Your task to perform on an android device: change notification settings in the gmail app Image 0: 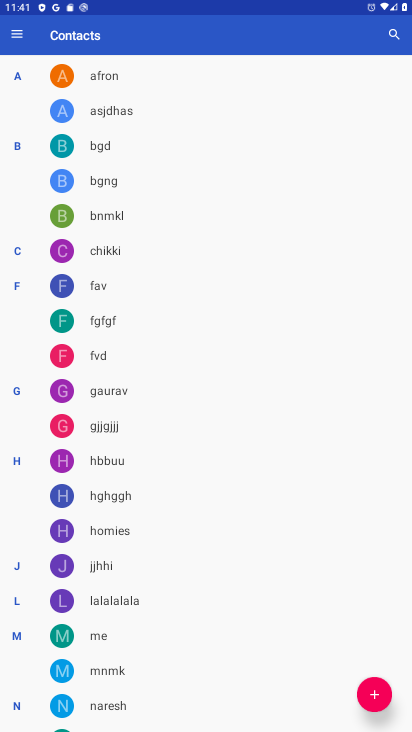
Step 0: press home button
Your task to perform on an android device: change notification settings in the gmail app Image 1: 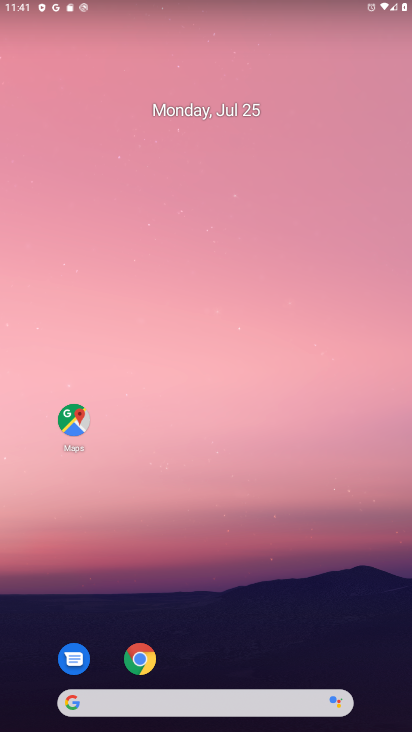
Step 1: drag from (213, 582) to (190, 1)
Your task to perform on an android device: change notification settings in the gmail app Image 2: 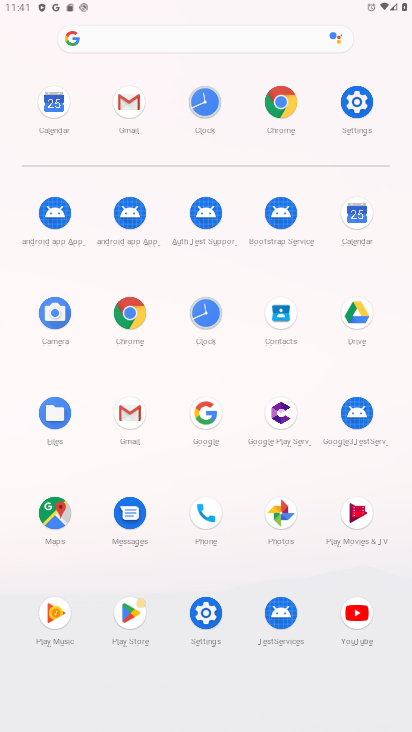
Step 2: click (122, 104)
Your task to perform on an android device: change notification settings in the gmail app Image 3: 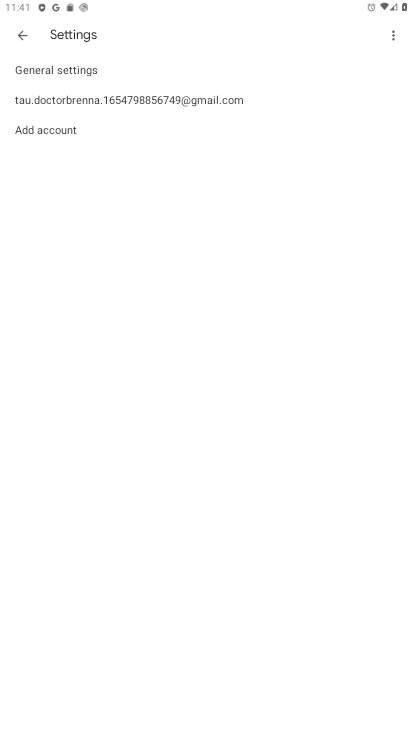
Step 3: click (53, 66)
Your task to perform on an android device: change notification settings in the gmail app Image 4: 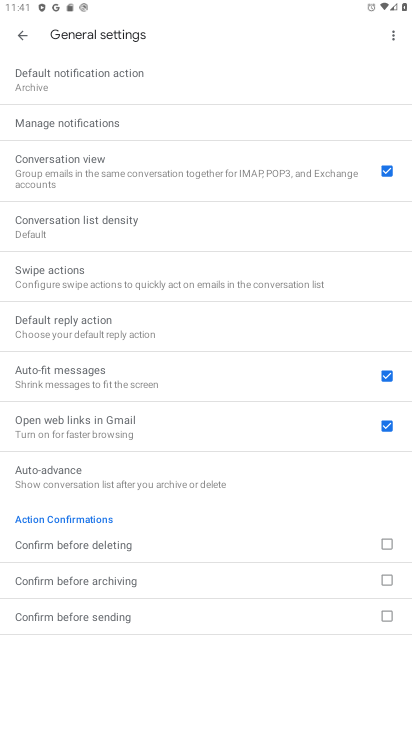
Step 4: click (89, 124)
Your task to perform on an android device: change notification settings in the gmail app Image 5: 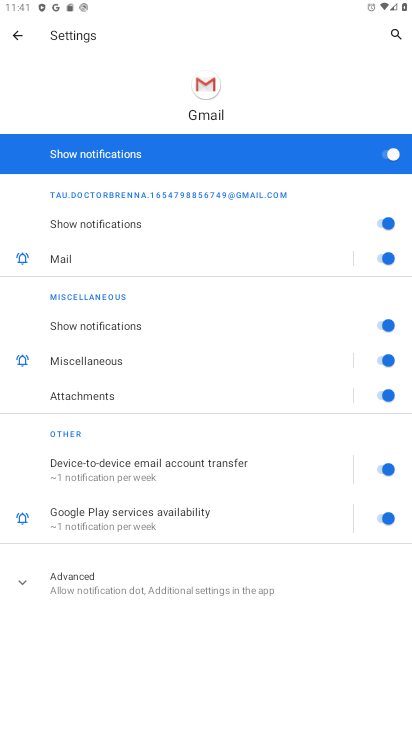
Step 5: click (388, 153)
Your task to perform on an android device: change notification settings in the gmail app Image 6: 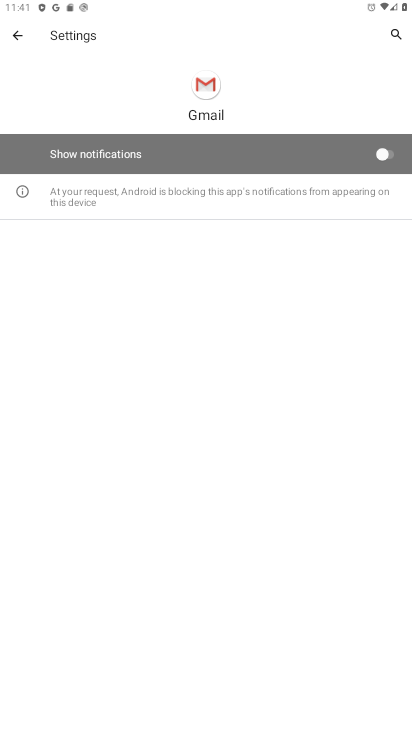
Step 6: task complete